Your task to perform on an android device: Go to notification settings Image 0: 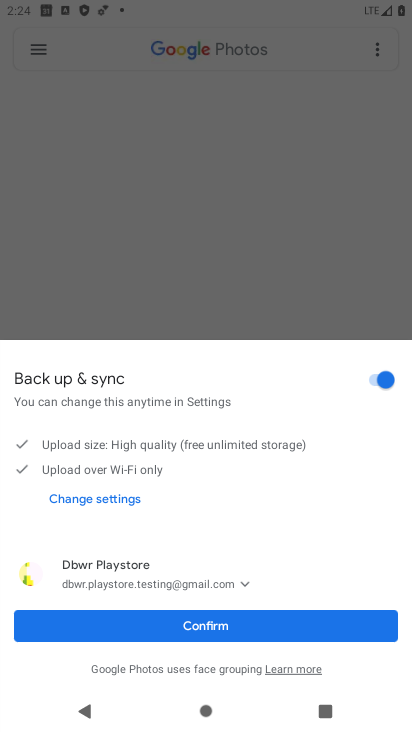
Step 0: press home button
Your task to perform on an android device: Go to notification settings Image 1: 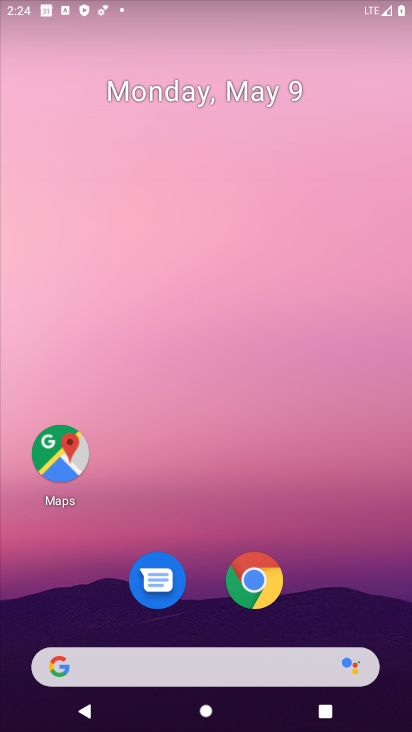
Step 1: drag from (335, 582) to (293, 54)
Your task to perform on an android device: Go to notification settings Image 2: 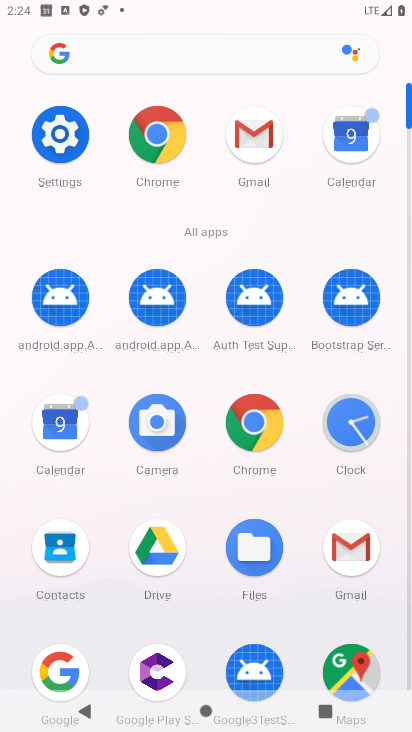
Step 2: click (70, 133)
Your task to perform on an android device: Go to notification settings Image 3: 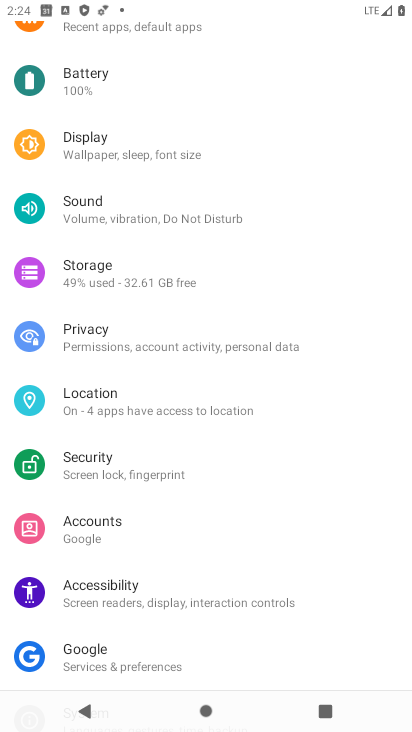
Step 3: drag from (169, 123) to (184, 500)
Your task to perform on an android device: Go to notification settings Image 4: 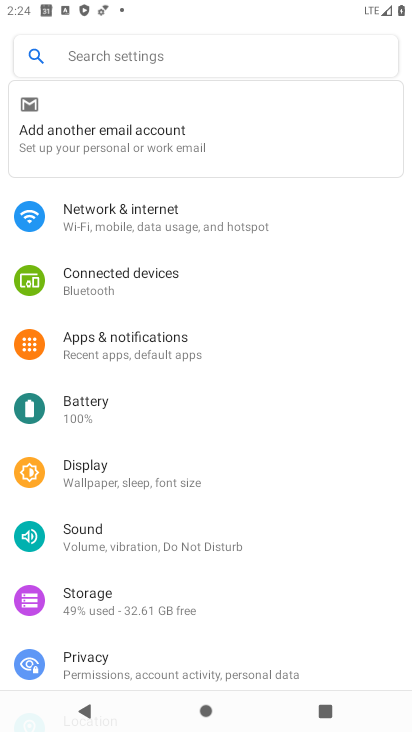
Step 4: click (152, 335)
Your task to perform on an android device: Go to notification settings Image 5: 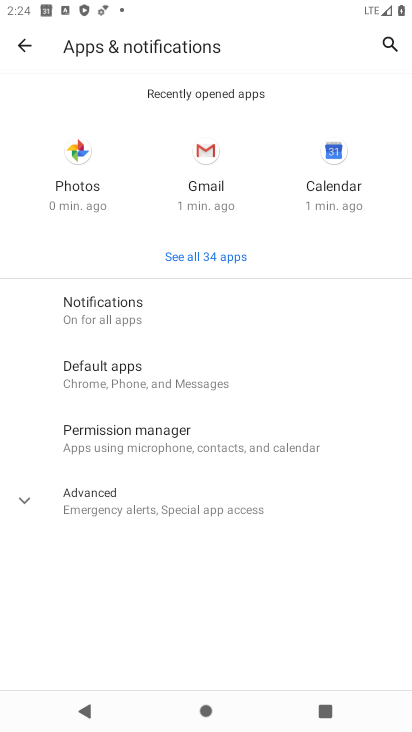
Step 5: task complete